Your task to perform on an android device: Show me the alarms in the clock app Image 0: 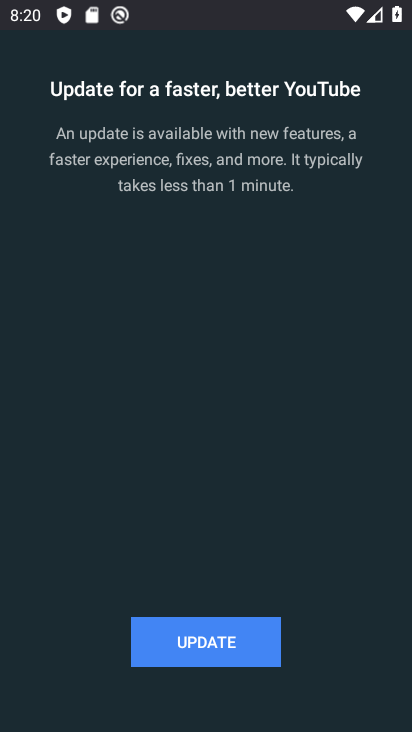
Step 0: press home button
Your task to perform on an android device: Show me the alarms in the clock app Image 1: 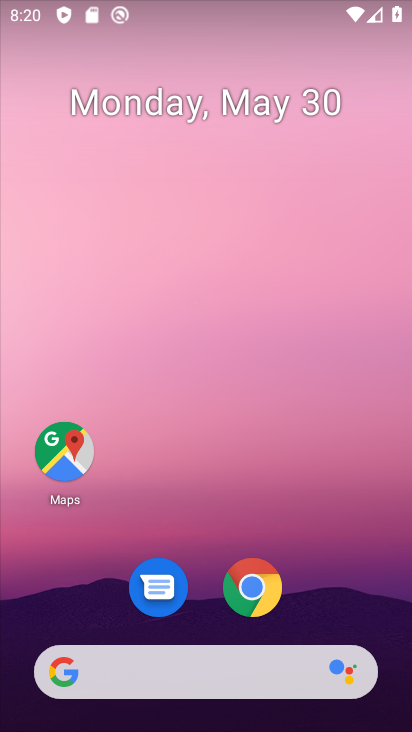
Step 1: drag from (220, 344) to (247, 43)
Your task to perform on an android device: Show me the alarms in the clock app Image 2: 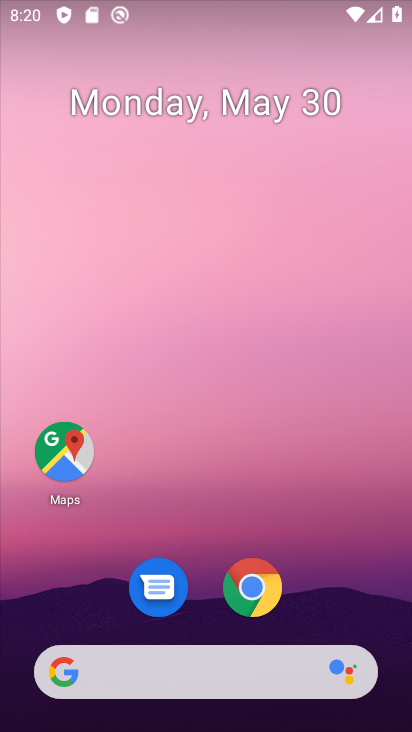
Step 2: drag from (202, 564) to (278, 0)
Your task to perform on an android device: Show me the alarms in the clock app Image 3: 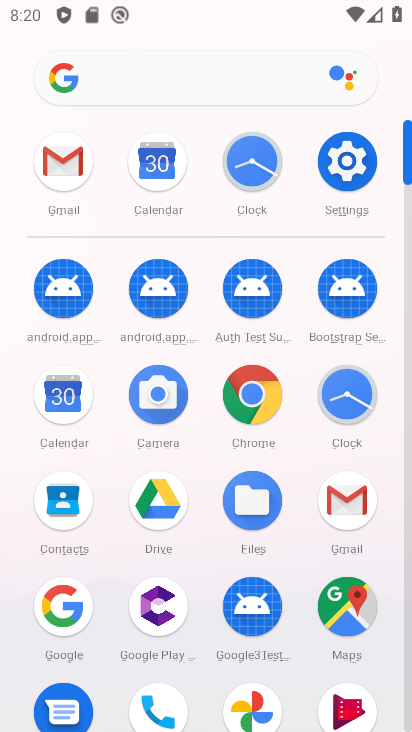
Step 3: click (250, 143)
Your task to perform on an android device: Show me the alarms in the clock app Image 4: 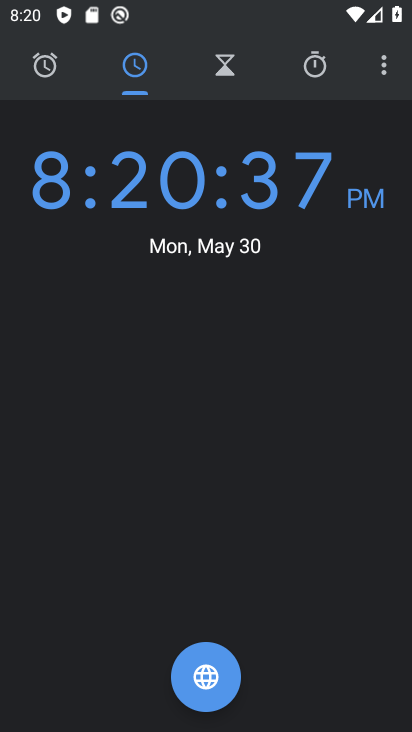
Step 4: click (43, 75)
Your task to perform on an android device: Show me the alarms in the clock app Image 5: 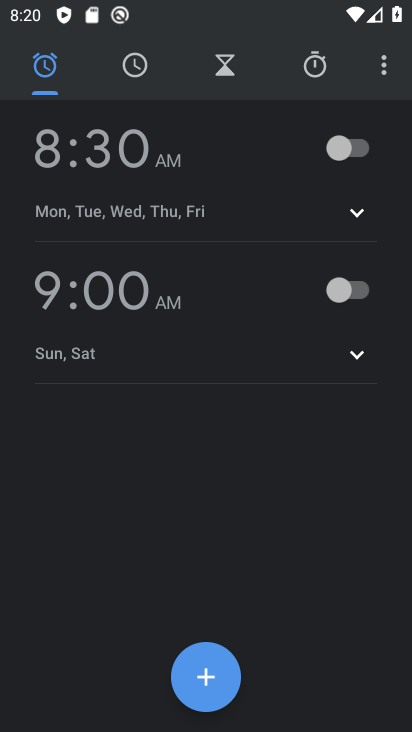
Step 5: task complete